Your task to perform on an android device: Check the weather Image 0: 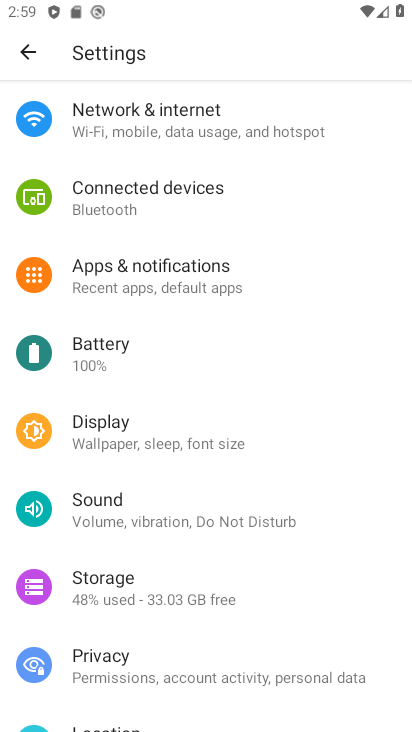
Step 0: press home button
Your task to perform on an android device: Check the weather Image 1: 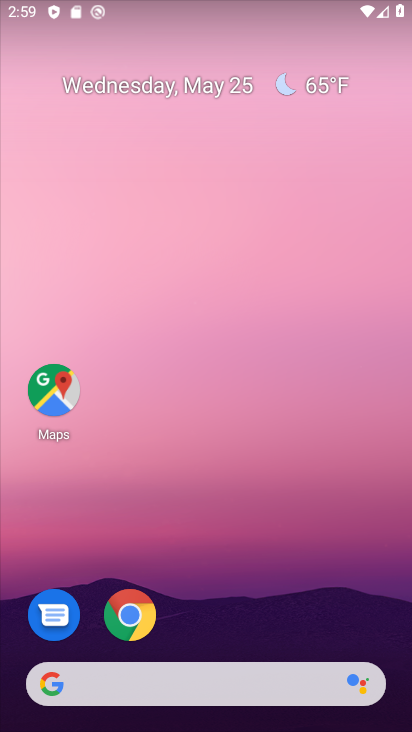
Step 1: drag from (10, 213) to (394, 148)
Your task to perform on an android device: Check the weather Image 2: 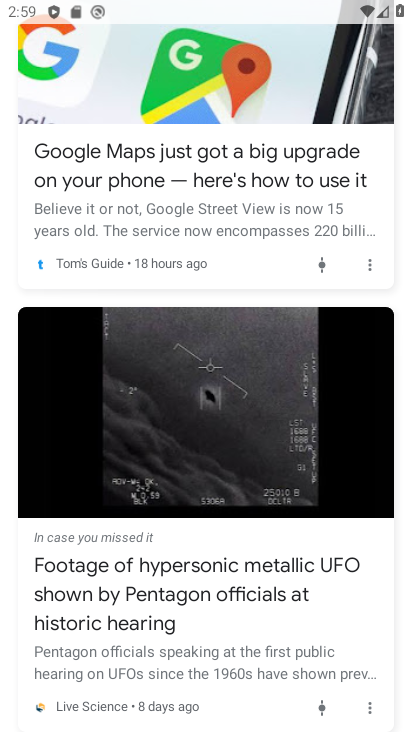
Step 2: drag from (300, 215) to (278, 687)
Your task to perform on an android device: Check the weather Image 3: 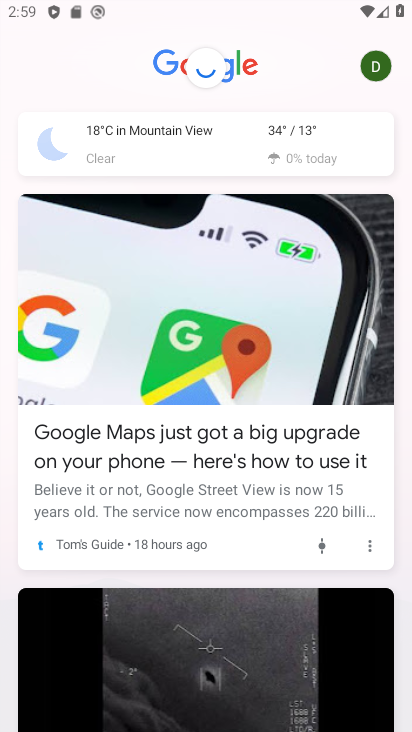
Step 3: click (231, 144)
Your task to perform on an android device: Check the weather Image 4: 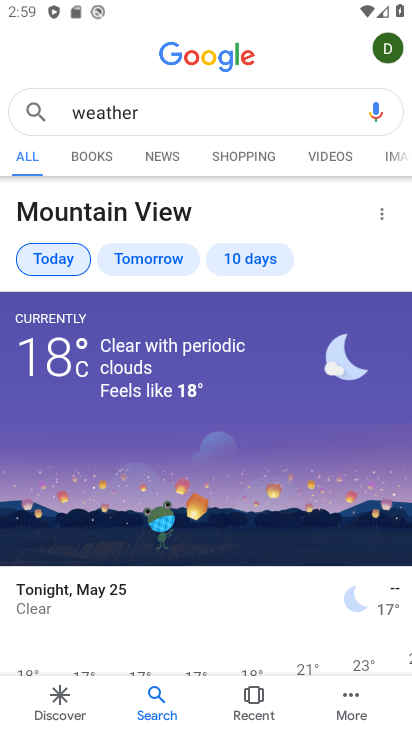
Step 4: task complete